Your task to perform on an android device: open app "Google Play Games" Image 0: 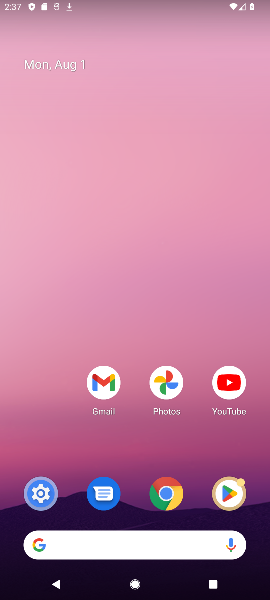
Step 0: click (235, 492)
Your task to perform on an android device: open app "Google Play Games" Image 1: 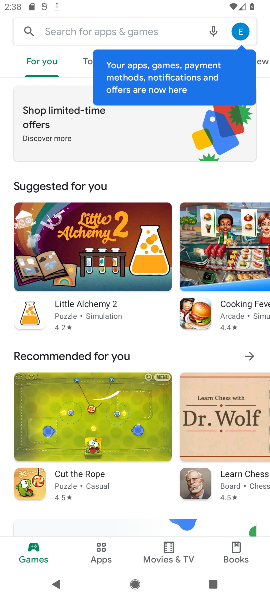
Step 1: click (119, 31)
Your task to perform on an android device: open app "Google Play Games" Image 2: 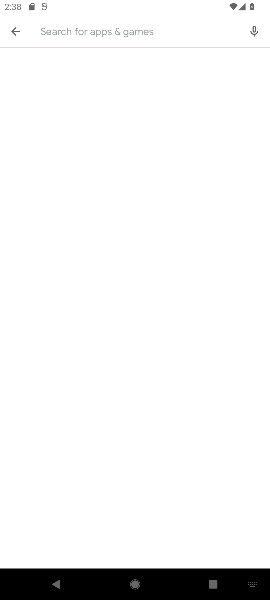
Step 2: type "google play games"
Your task to perform on an android device: open app "Google Play Games" Image 3: 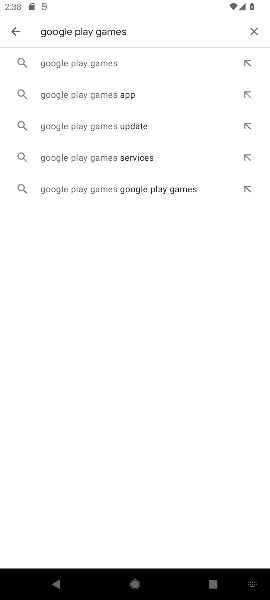
Step 3: click (98, 59)
Your task to perform on an android device: open app "Google Play Games" Image 4: 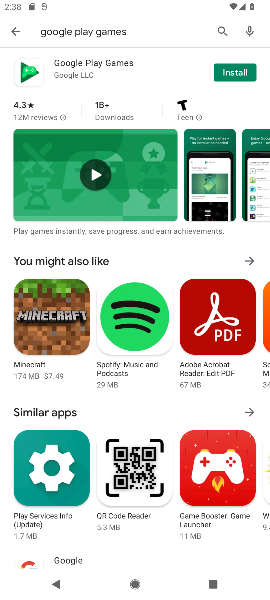
Step 4: click (93, 59)
Your task to perform on an android device: open app "Google Play Games" Image 5: 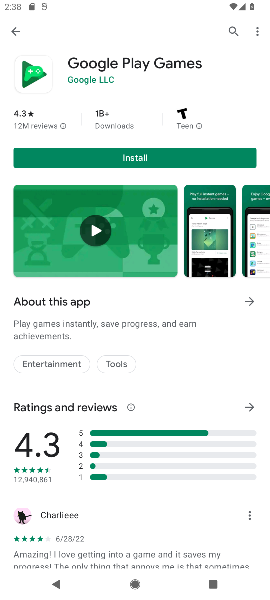
Step 5: task complete